Your task to perform on an android device: uninstall "Pluto TV - Live TV and Movies" Image 0: 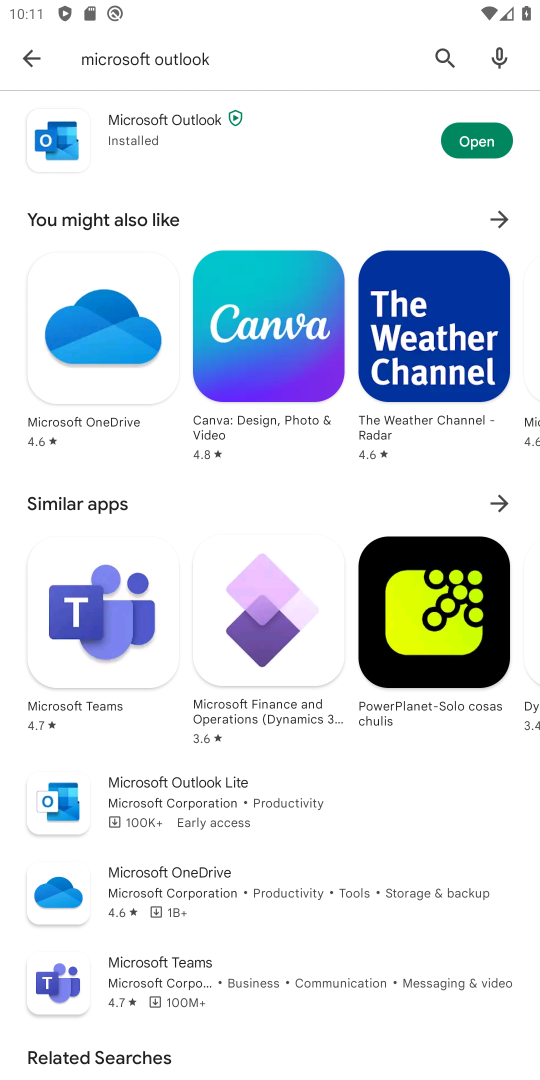
Step 0: click (442, 57)
Your task to perform on an android device: uninstall "Pluto TV - Live TV and Movies" Image 1: 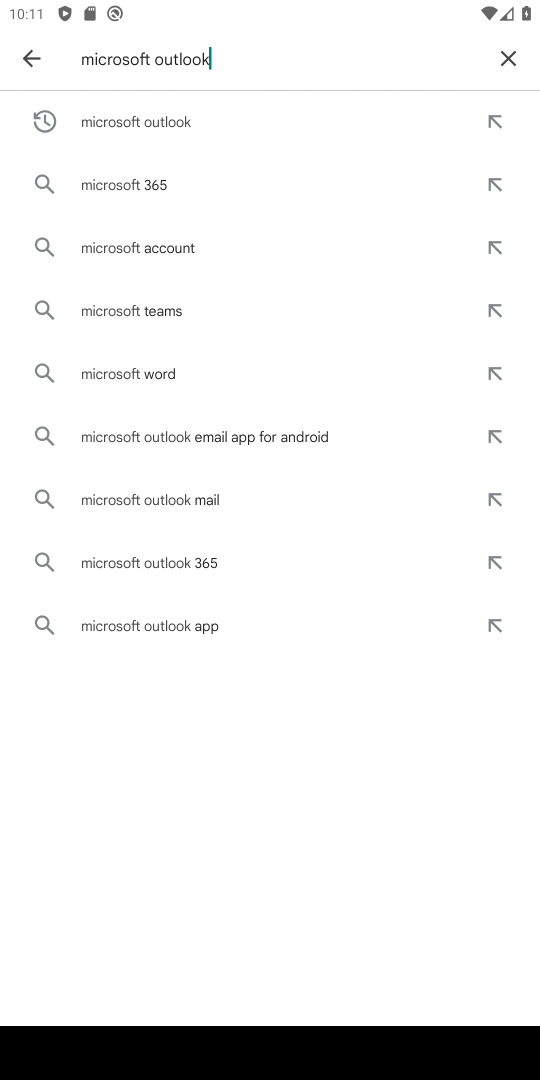
Step 1: click (503, 55)
Your task to perform on an android device: uninstall "Pluto TV - Live TV and Movies" Image 2: 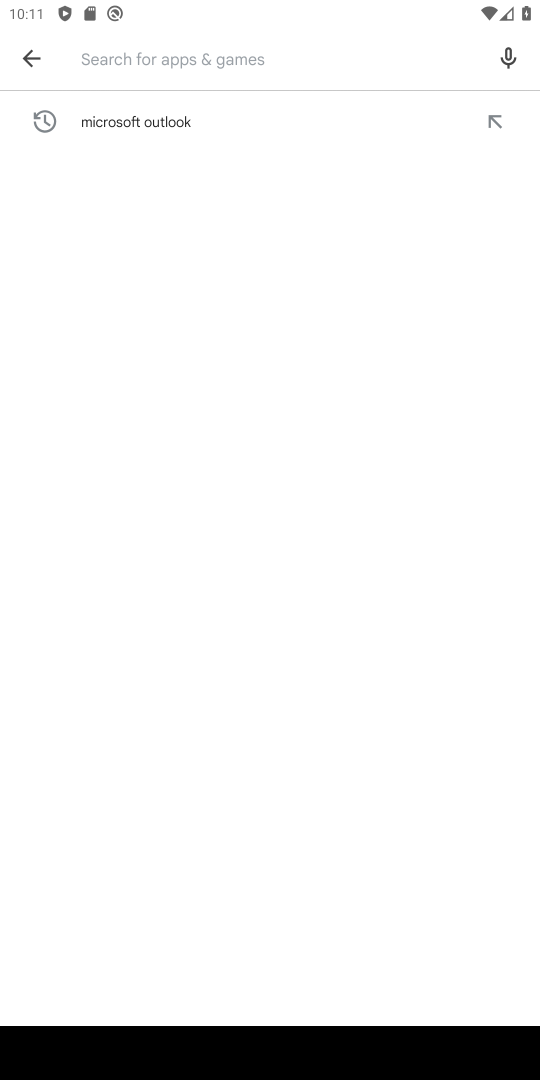
Step 2: type "pluto tv"
Your task to perform on an android device: uninstall "Pluto TV - Live TV and Movies" Image 3: 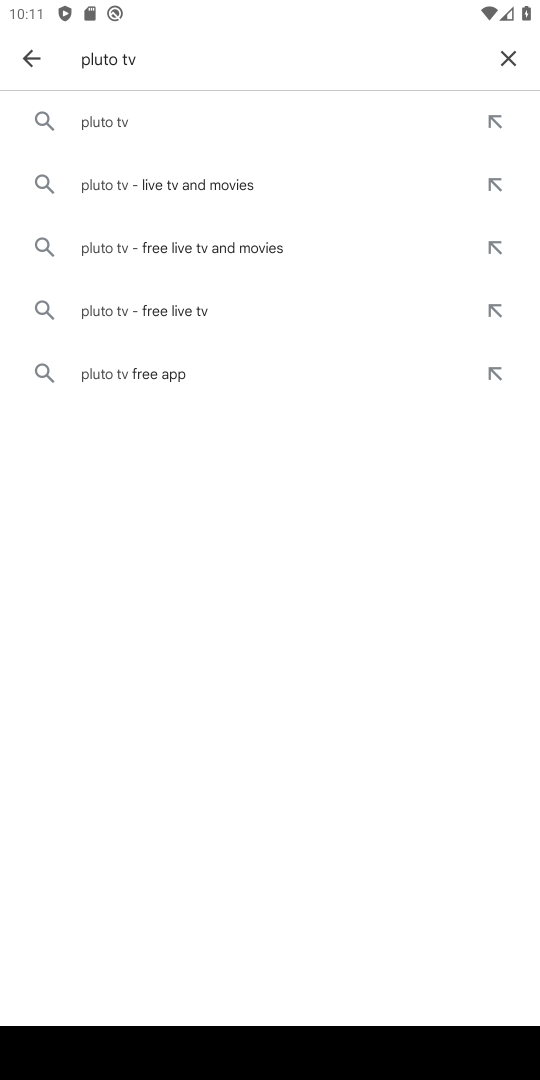
Step 3: click (137, 131)
Your task to perform on an android device: uninstall "Pluto TV - Live TV and Movies" Image 4: 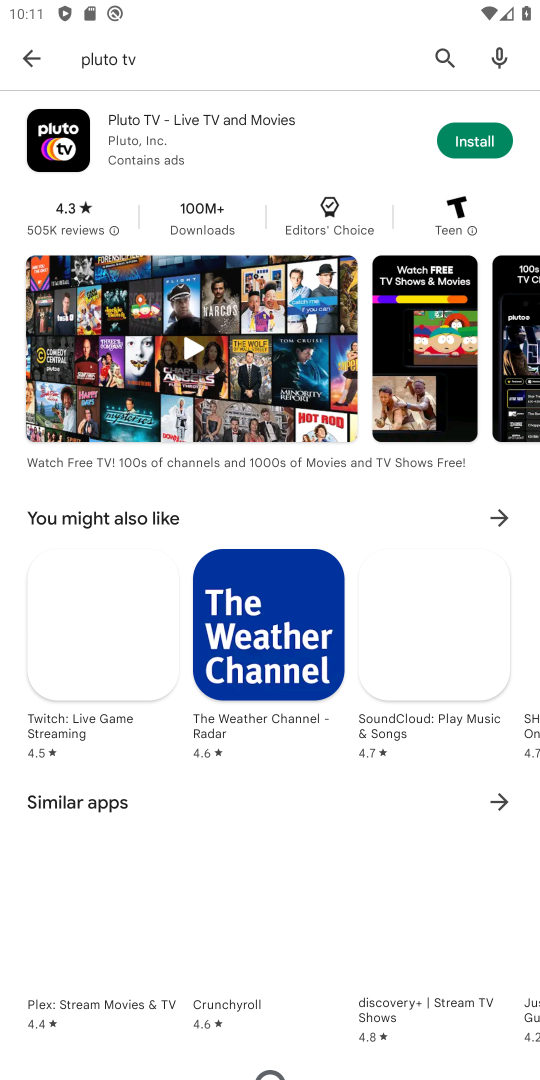
Step 4: click (480, 130)
Your task to perform on an android device: uninstall "Pluto TV - Live TV and Movies" Image 5: 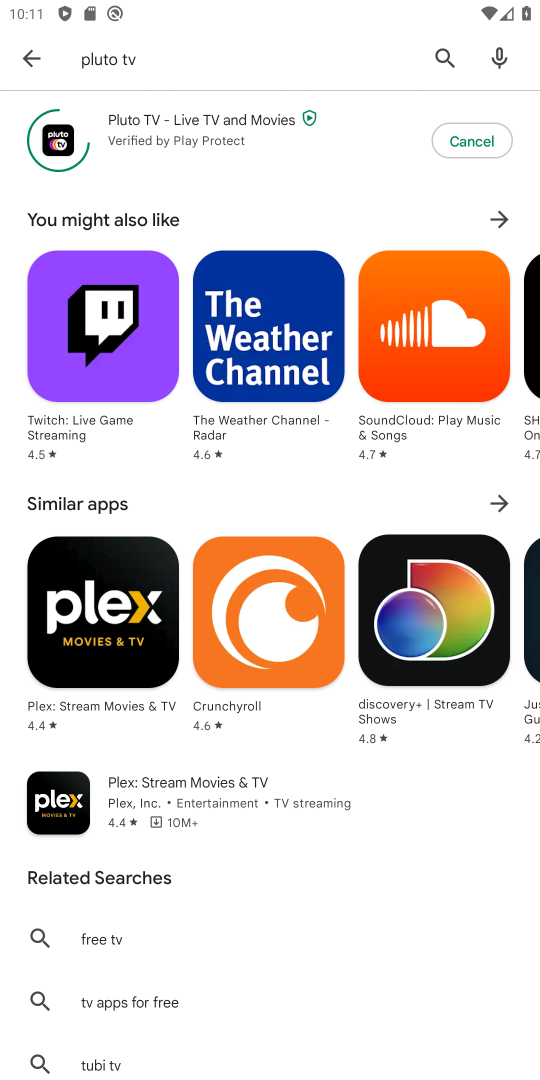
Step 5: task complete